Your task to perform on an android device: open wifi settings Image 0: 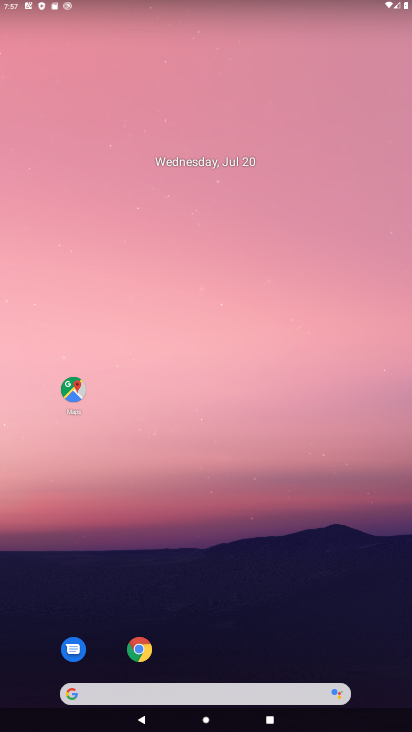
Step 0: drag from (171, 689) to (338, 223)
Your task to perform on an android device: open wifi settings Image 1: 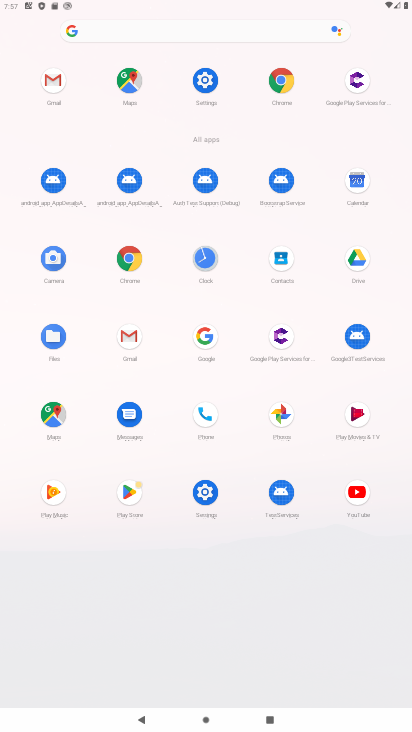
Step 1: click (205, 80)
Your task to perform on an android device: open wifi settings Image 2: 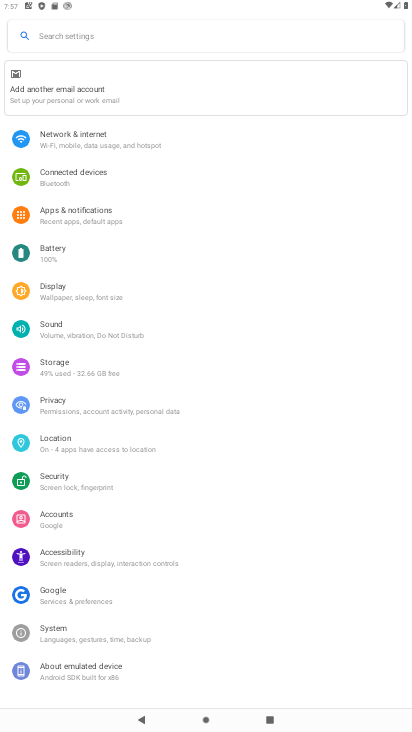
Step 2: click (80, 142)
Your task to perform on an android device: open wifi settings Image 3: 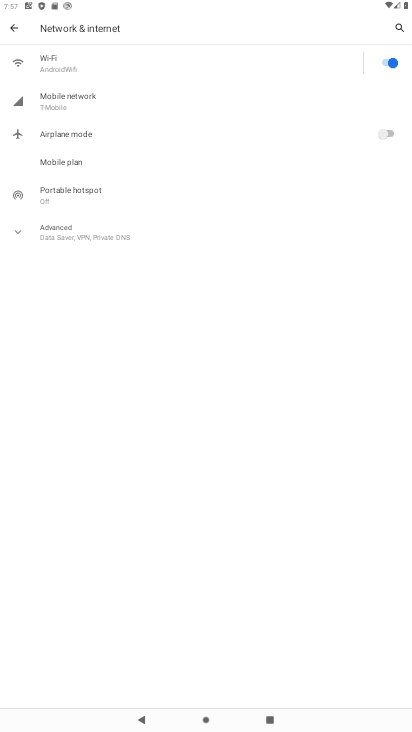
Step 3: click (43, 64)
Your task to perform on an android device: open wifi settings Image 4: 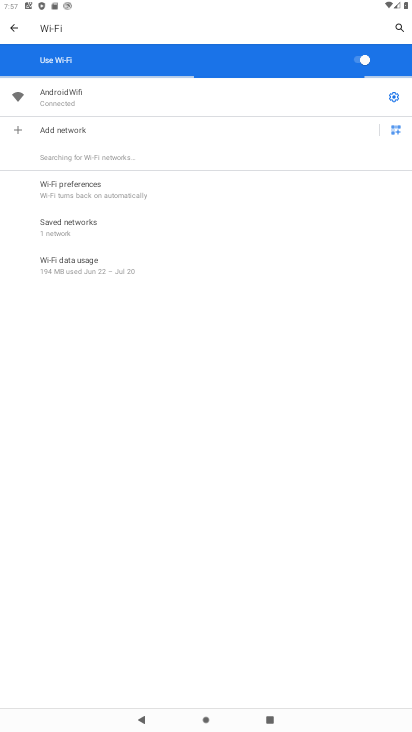
Step 4: click (395, 96)
Your task to perform on an android device: open wifi settings Image 5: 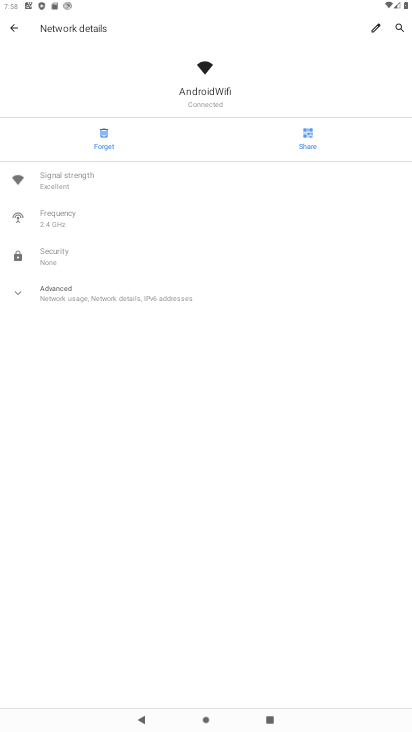
Step 5: task complete